Your task to perform on an android device: Go to internet settings Image 0: 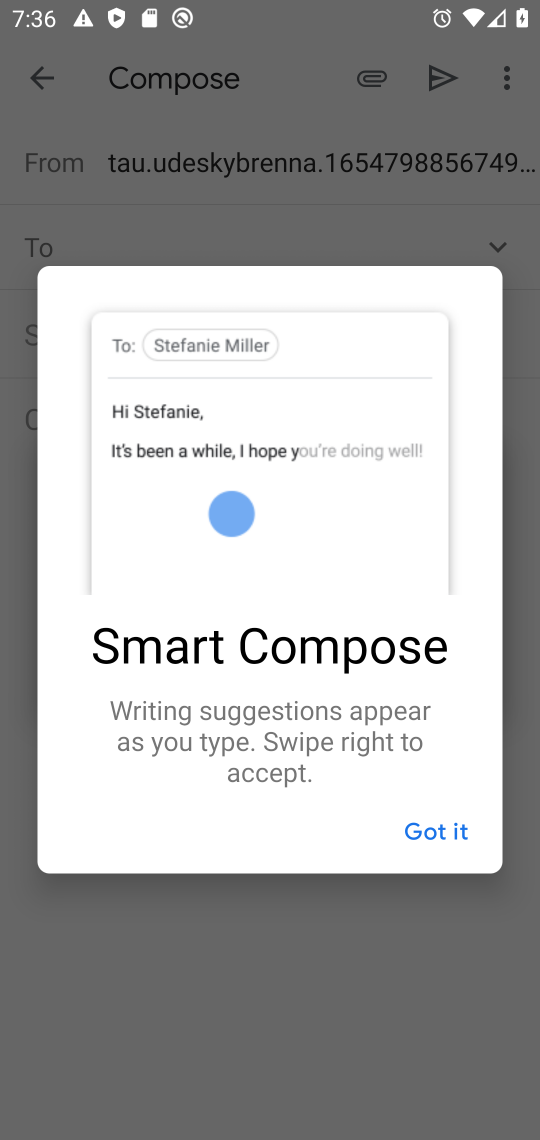
Step 0: click (435, 828)
Your task to perform on an android device: Go to internet settings Image 1: 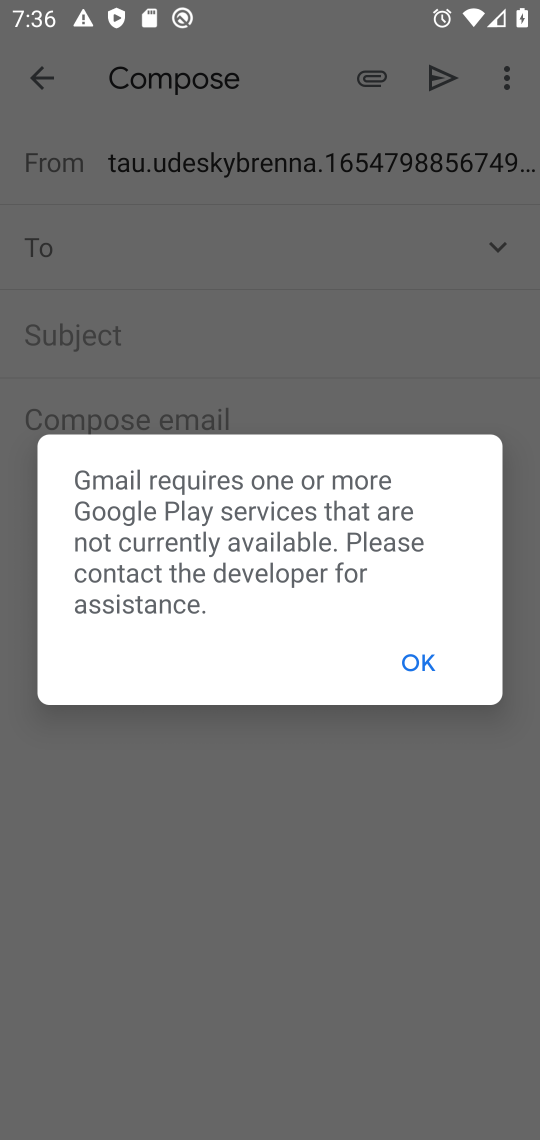
Step 1: click (417, 661)
Your task to perform on an android device: Go to internet settings Image 2: 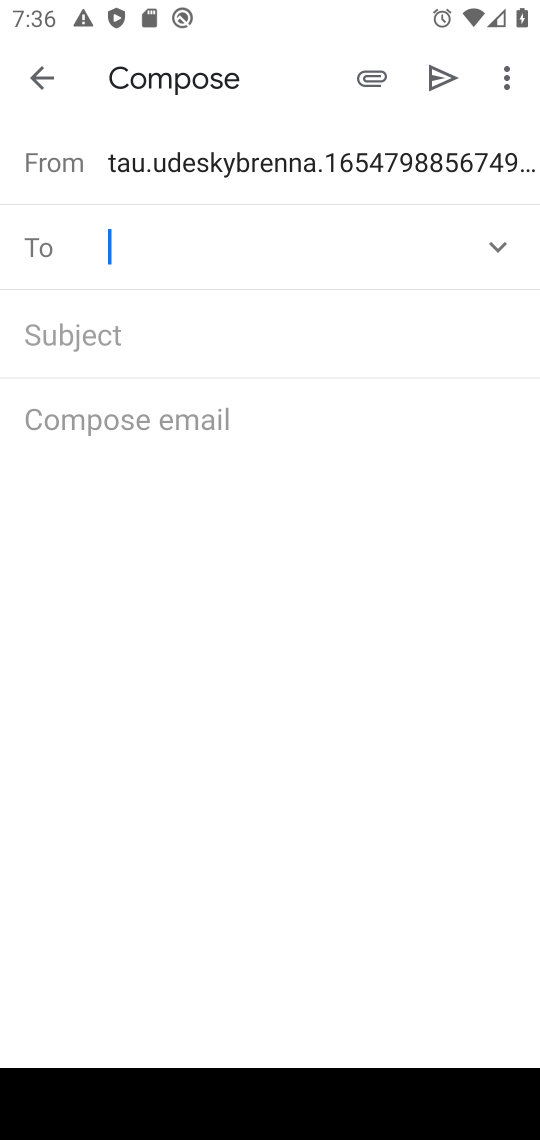
Step 2: press home button
Your task to perform on an android device: Go to internet settings Image 3: 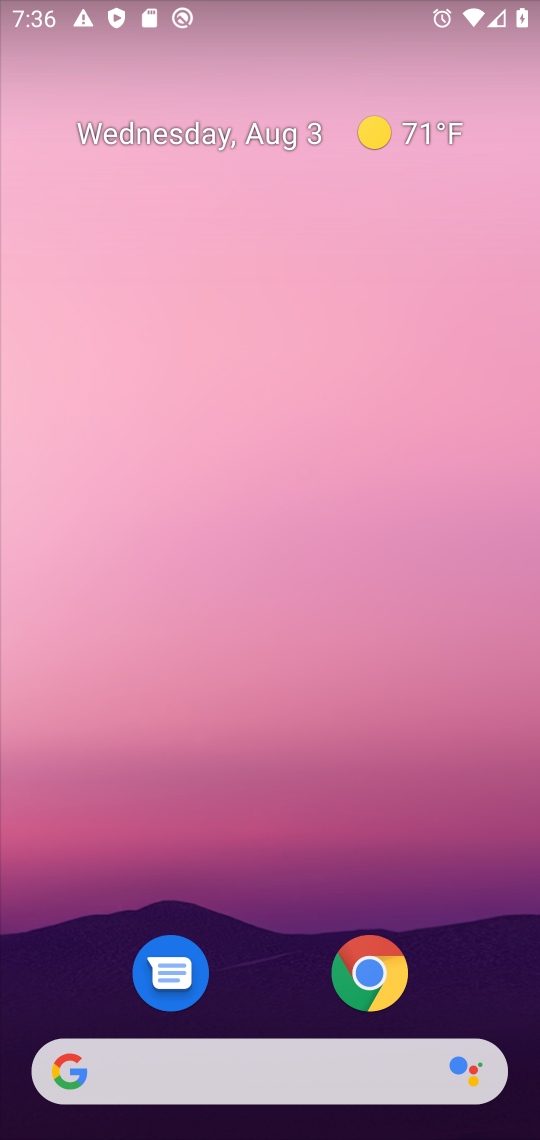
Step 3: drag from (266, 828) to (212, 238)
Your task to perform on an android device: Go to internet settings Image 4: 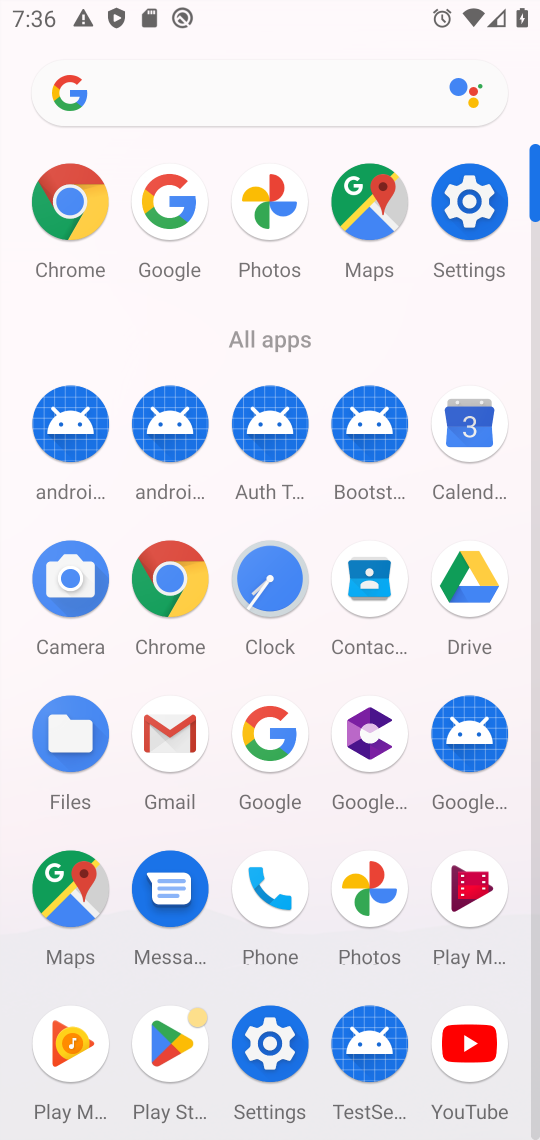
Step 4: click (475, 194)
Your task to perform on an android device: Go to internet settings Image 5: 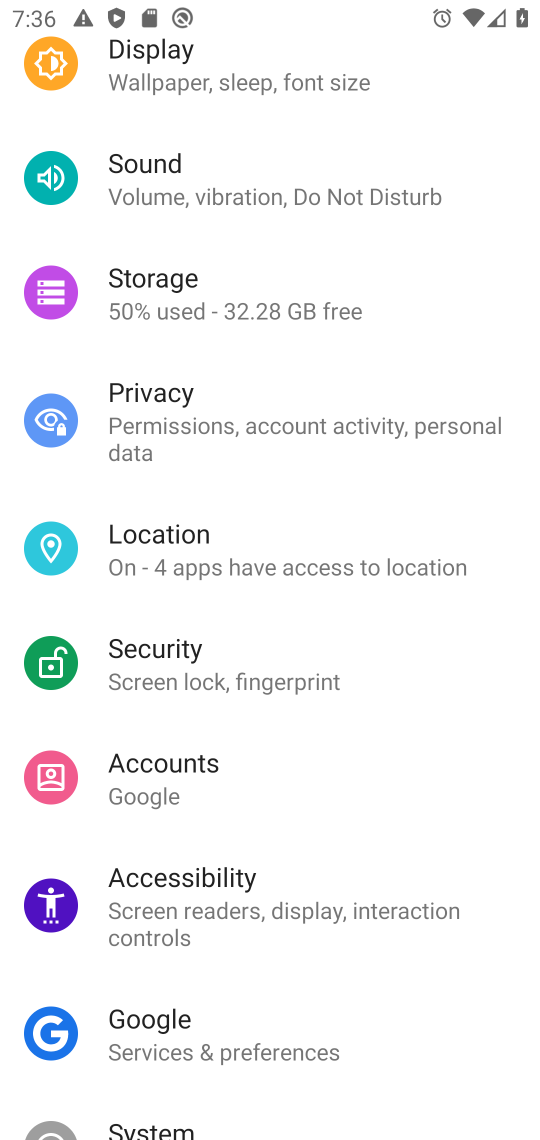
Step 5: drag from (318, 638) to (305, 978)
Your task to perform on an android device: Go to internet settings Image 6: 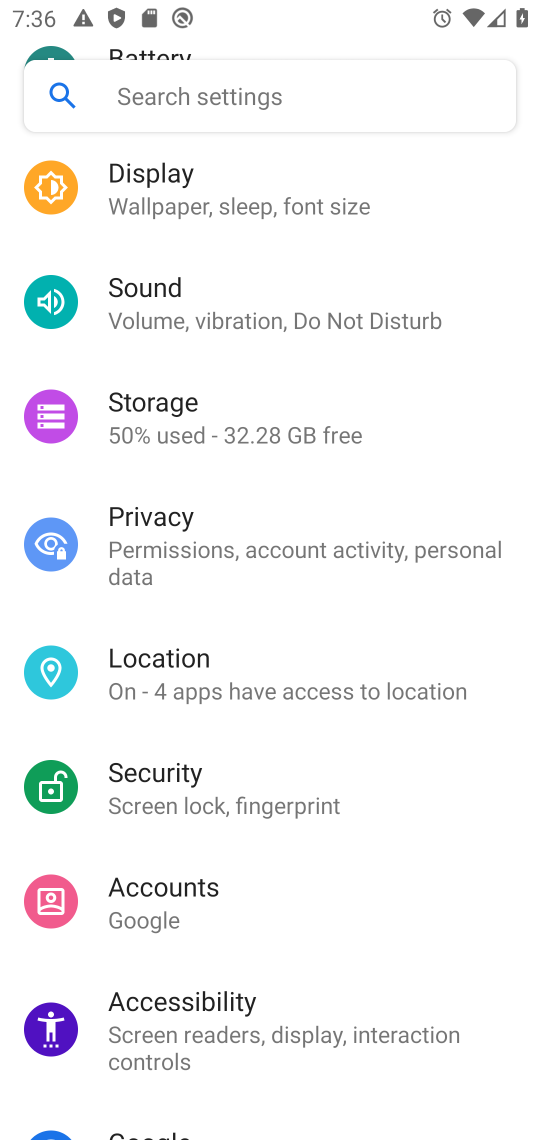
Step 6: drag from (366, 420) to (312, 1075)
Your task to perform on an android device: Go to internet settings Image 7: 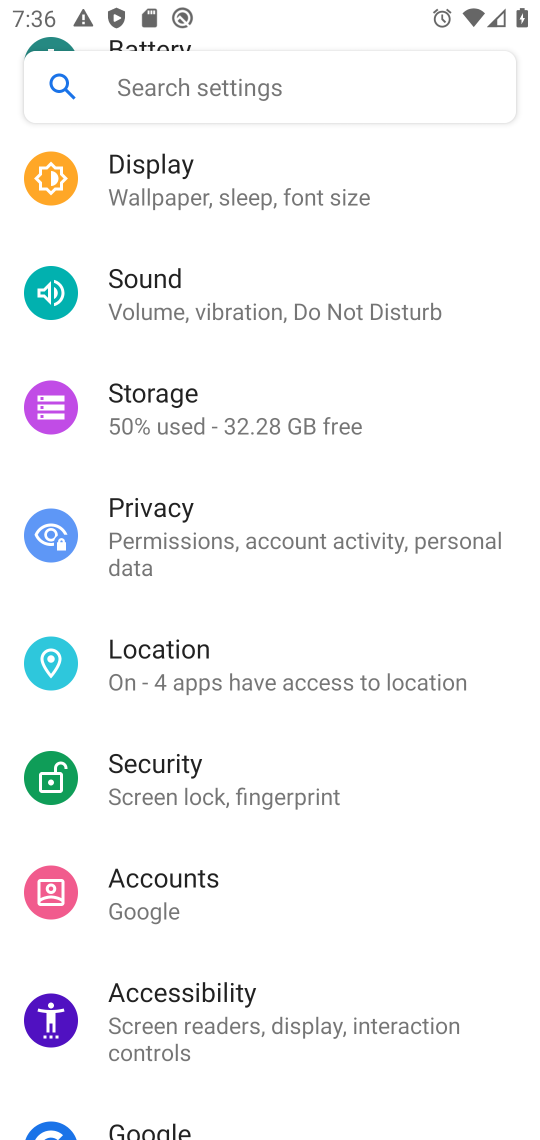
Step 7: drag from (306, 306) to (206, 1126)
Your task to perform on an android device: Go to internet settings Image 8: 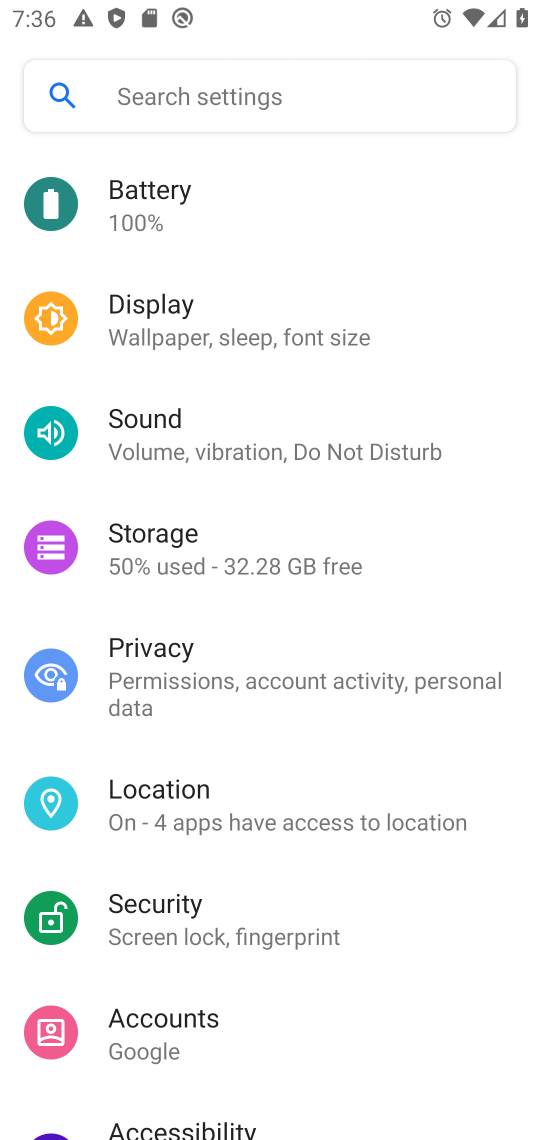
Step 8: drag from (184, 336) to (202, 811)
Your task to perform on an android device: Go to internet settings Image 9: 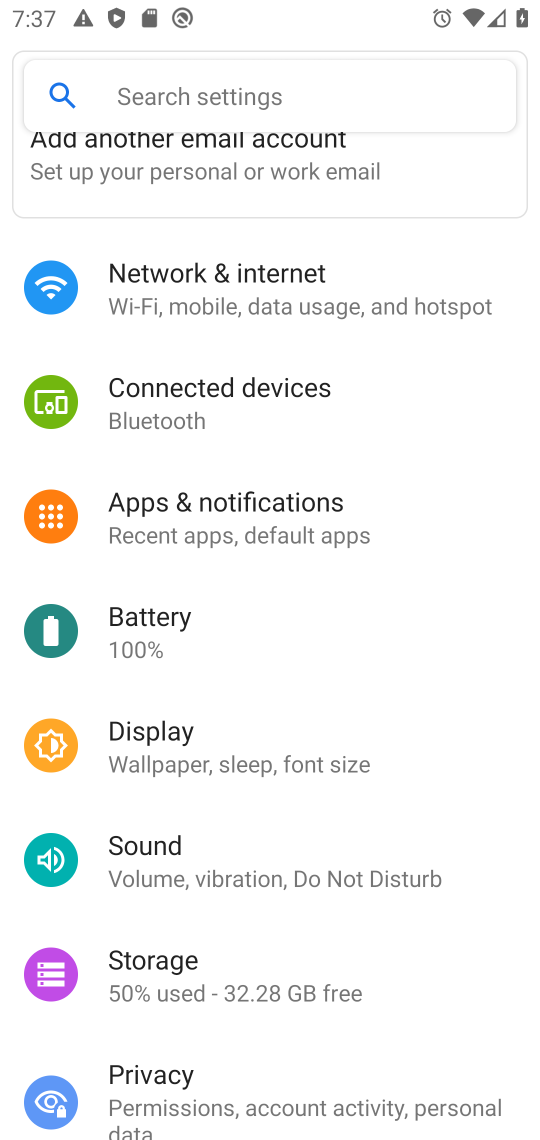
Step 9: click (267, 262)
Your task to perform on an android device: Go to internet settings Image 10: 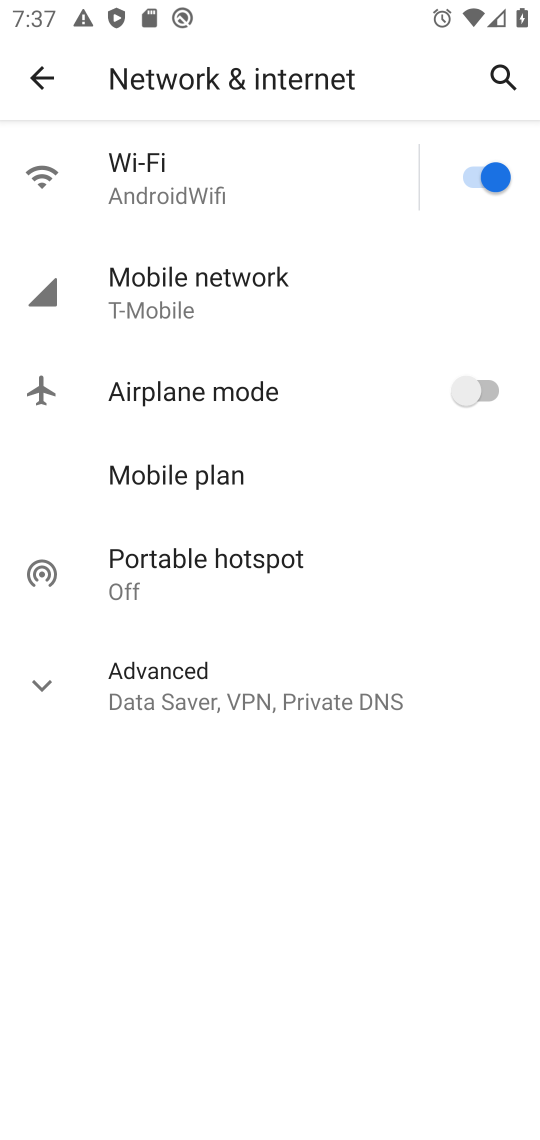
Step 10: task complete